Your task to perform on an android device: Open privacy settings Image 0: 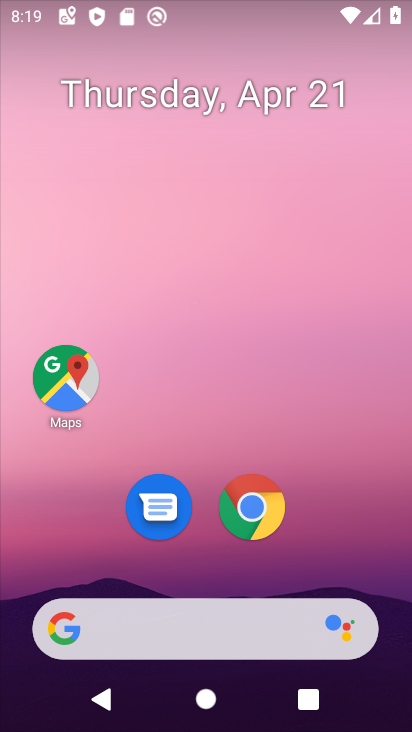
Step 0: drag from (359, 470) to (335, 168)
Your task to perform on an android device: Open privacy settings Image 1: 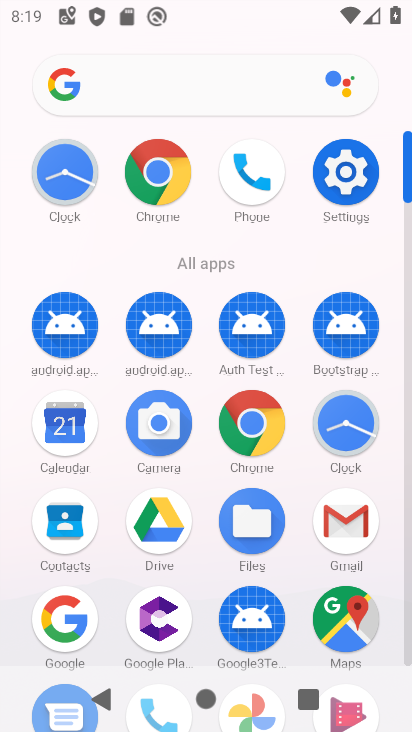
Step 1: click (341, 181)
Your task to perform on an android device: Open privacy settings Image 2: 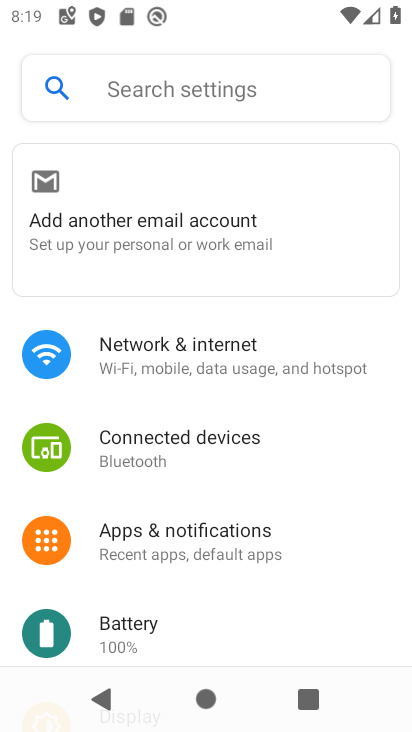
Step 2: drag from (289, 513) to (307, 305)
Your task to perform on an android device: Open privacy settings Image 3: 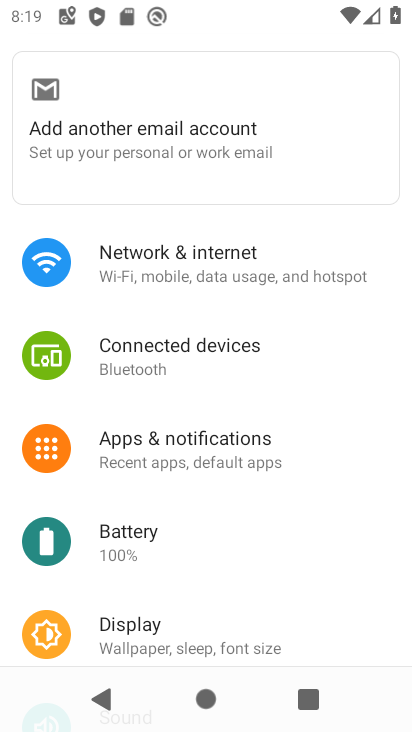
Step 3: drag from (253, 598) to (334, 277)
Your task to perform on an android device: Open privacy settings Image 4: 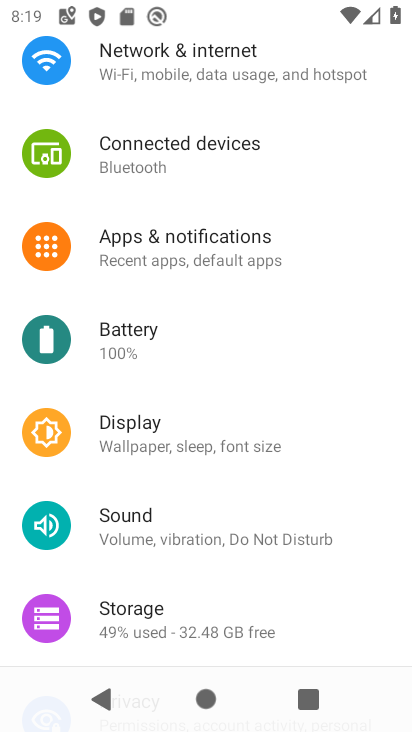
Step 4: drag from (229, 580) to (300, 246)
Your task to perform on an android device: Open privacy settings Image 5: 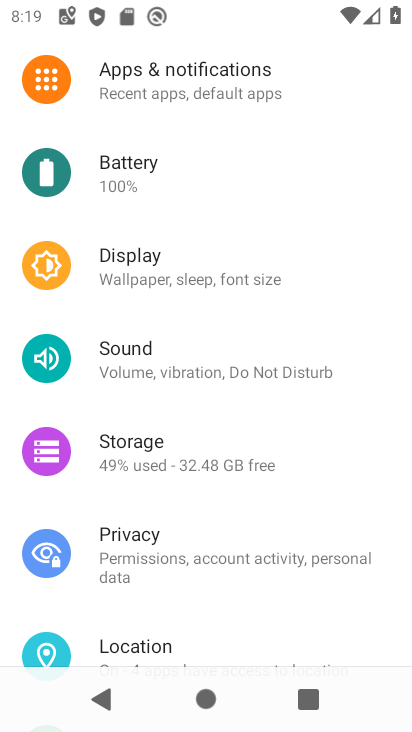
Step 5: click (190, 548)
Your task to perform on an android device: Open privacy settings Image 6: 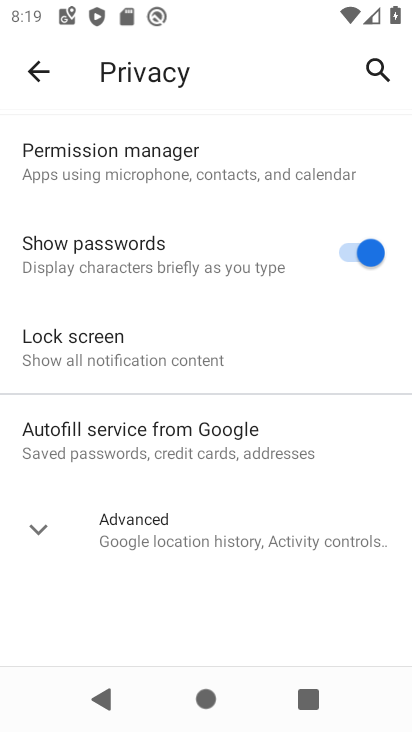
Step 6: task complete